Your task to perform on an android device: turn pop-ups on in chrome Image 0: 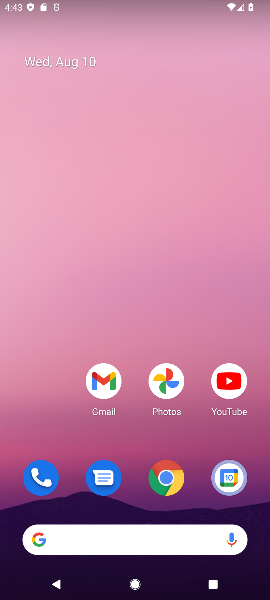
Step 0: click (162, 482)
Your task to perform on an android device: turn pop-ups on in chrome Image 1: 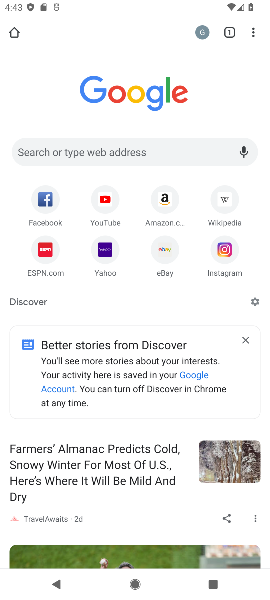
Step 1: click (251, 34)
Your task to perform on an android device: turn pop-ups on in chrome Image 2: 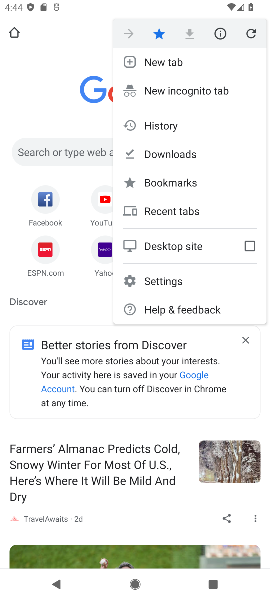
Step 2: click (150, 275)
Your task to perform on an android device: turn pop-ups on in chrome Image 3: 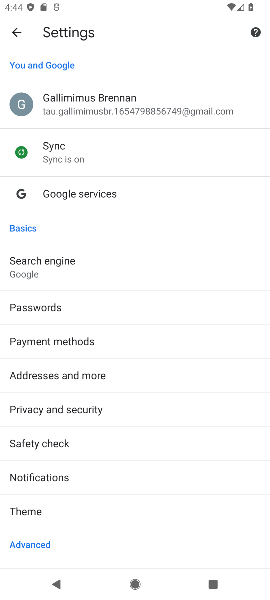
Step 3: drag from (163, 381) to (111, 130)
Your task to perform on an android device: turn pop-ups on in chrome Image 4: 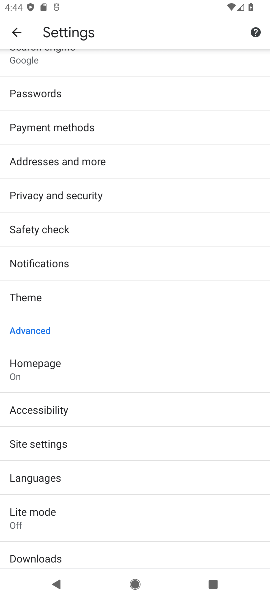
Step 4: click (38, 446)
Your task to perform on an android device: turn pop-ups on in chrome Image 5: 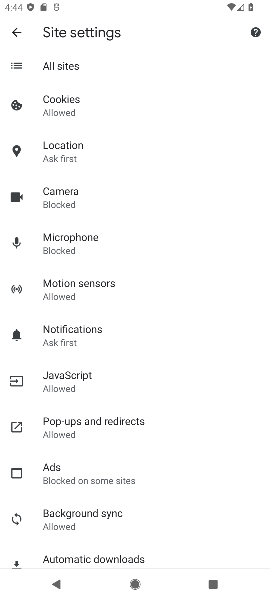
Step 5: click (100, 414)
Your task to perform on an android device: turn pop-ups on in chrome Image 6: 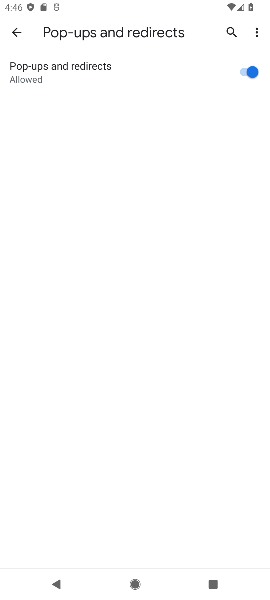
Step 6: task complete